Your task to perform on an android device: Is it going to rain this weekend? Image 0: 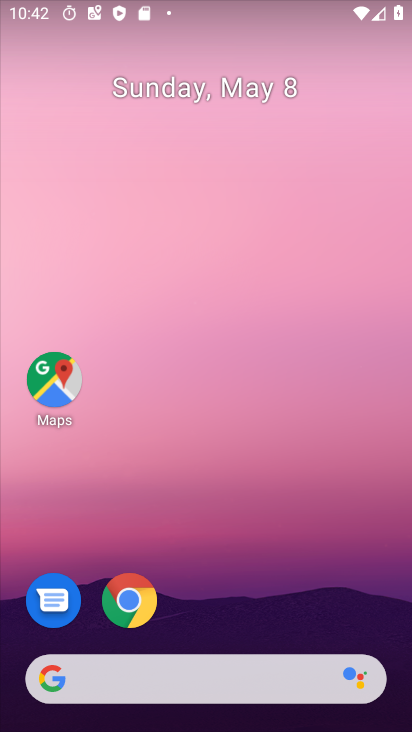
Step 0: click (216, 672)
Your task to perform on an android device: Is it going to rain this weekend? Image 1: 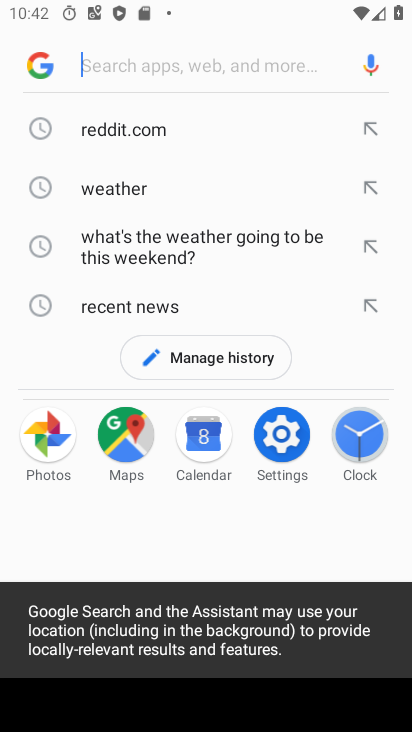
Step 1: click (166, 196)
Your task to perform on an android device: Is it going to rain this weekend? Image 2: 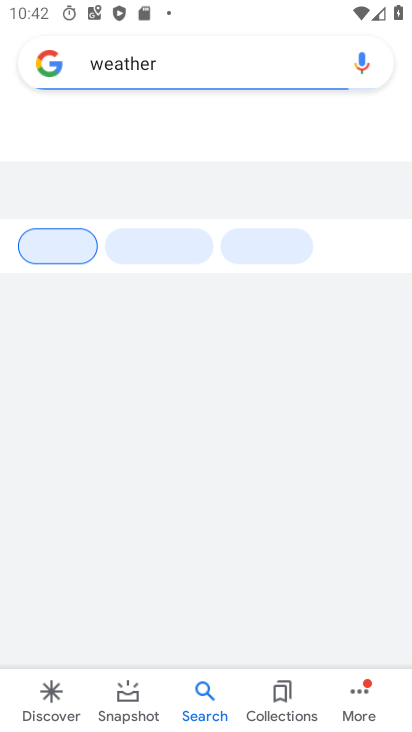
Step 2: task complete